Your task to perform on an android device: Search for Mexican restaurants on Maps Image 0: 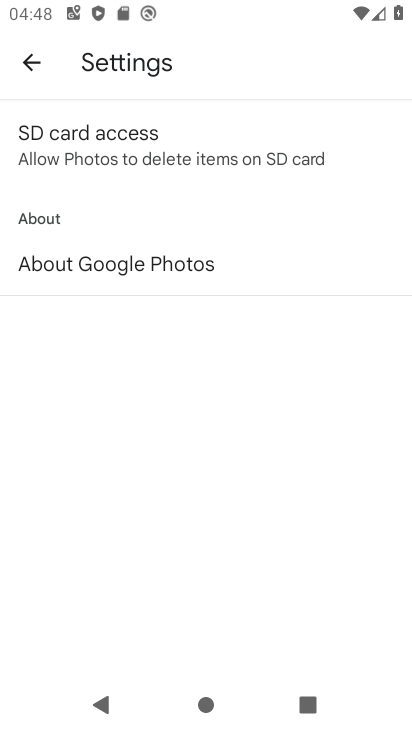
Step 0: press home button
Your task to perform on an android device: Search for Mexican restaurants on Maps Image 1: 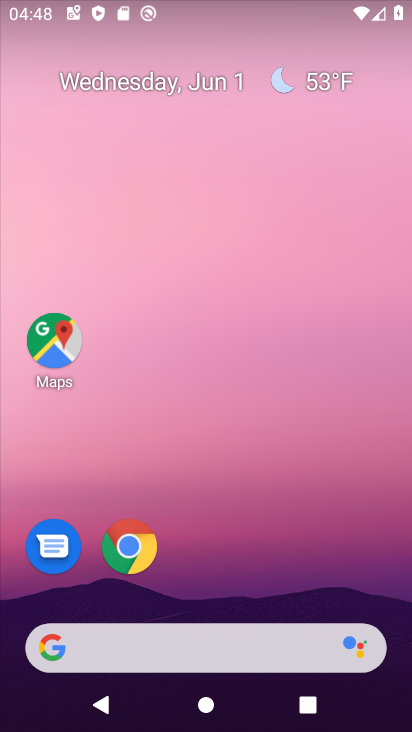
Step 1: click (52, 350)
Your task to perform on an android device: Search for Mexican restaurants on Maps Image 2: 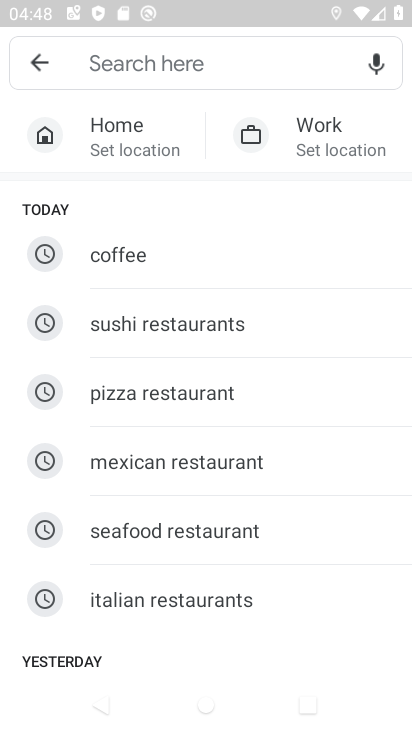
Step 2: click (209, 70)
Your task to perform on an android device: Search for Mexican restaurants on Maps Image 3: 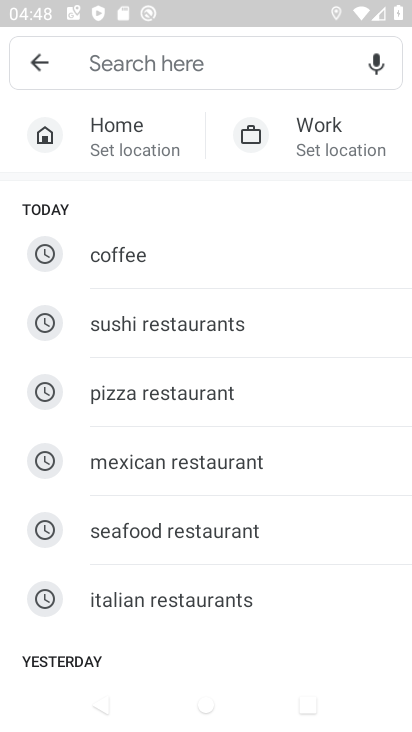
Step 3: click (126, 67)
Your task to perform on an android device: Search for Mexican restaurants on Maps Image 4: 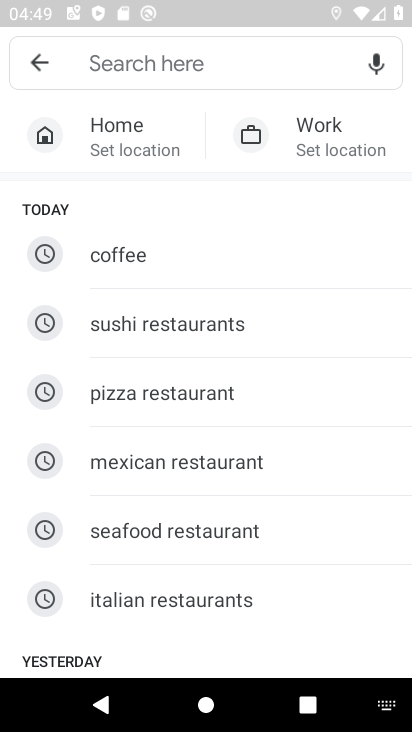
Step 4: type "mexican"
Your task to perform on an android device: Search for Mexican restaurants on Maps Image 5: 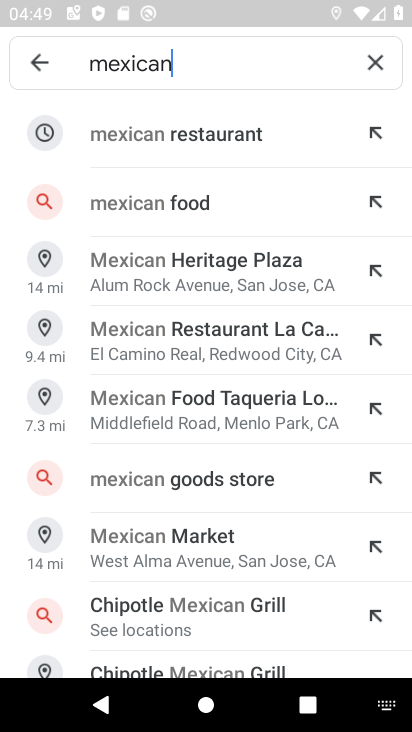
Step 5: click (158, 132)
Your task to perform on an android device: Search for Mexican restaurants on Maps Image 6: 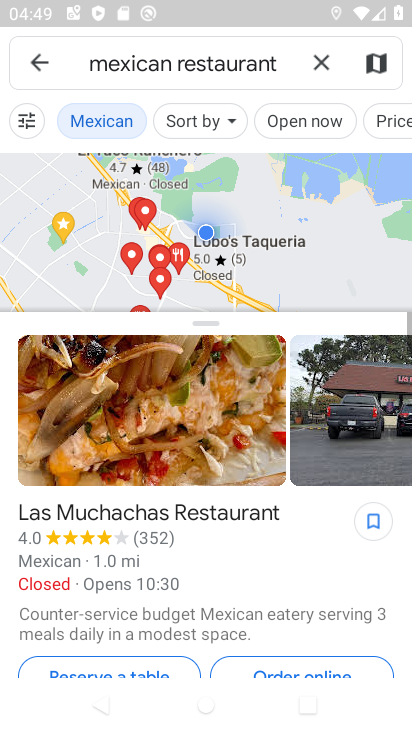
Step 6: task complete